Your task to perform on an android device: allow notifications from all sites in the chrome app Image 0: 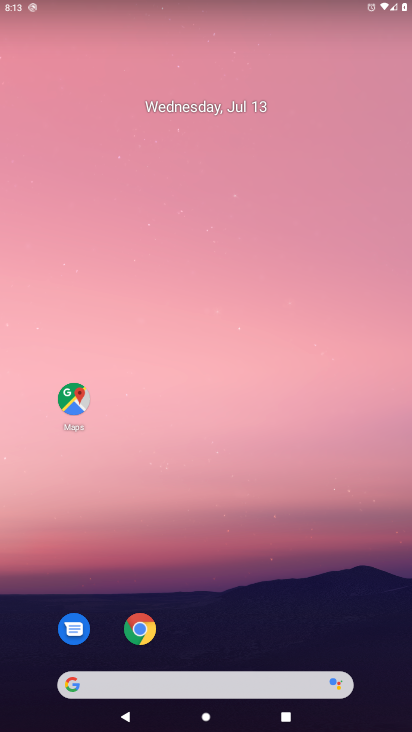
Step 0: click (256, 19)
Your task to perform on an android device: allow notifications from all sites in the chrome app Image 1: 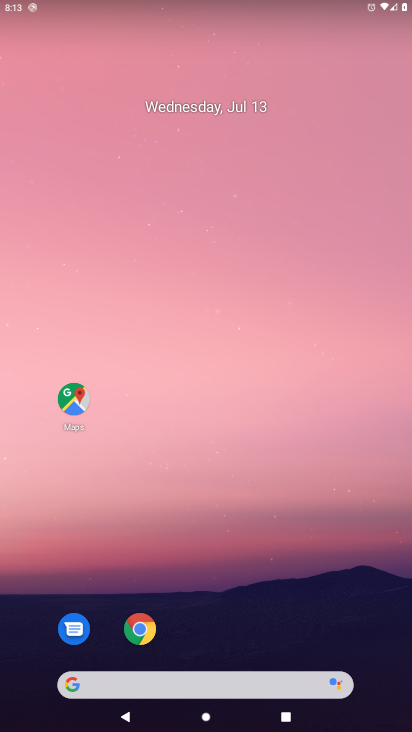
Step 1: drag from (19, 722) to (364, 12)
Your task to perform on an android device: allow notifications from all sites in the chrome app Image 2: 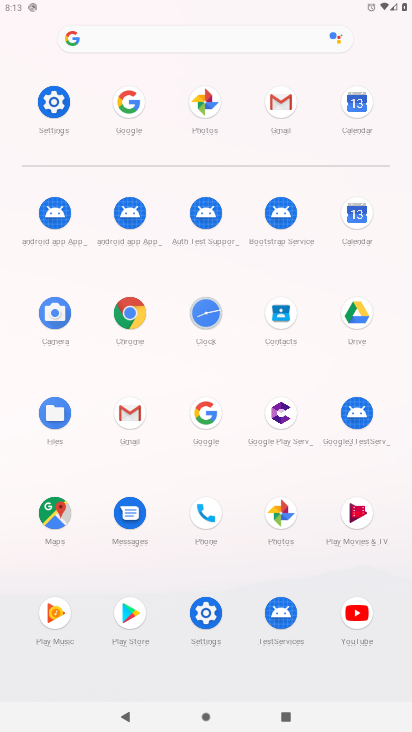
Step 2: click (145, 310)
Your task to perform on an android device: allow notifications from all sites in the chrome app Image 3: 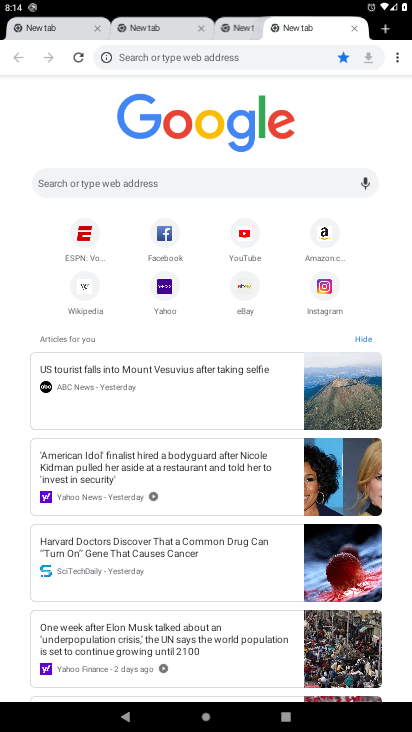
Step 3: click (399, 58)
Your task to perform on an android device: allow notifications from all sites in the chrome app Image 4: 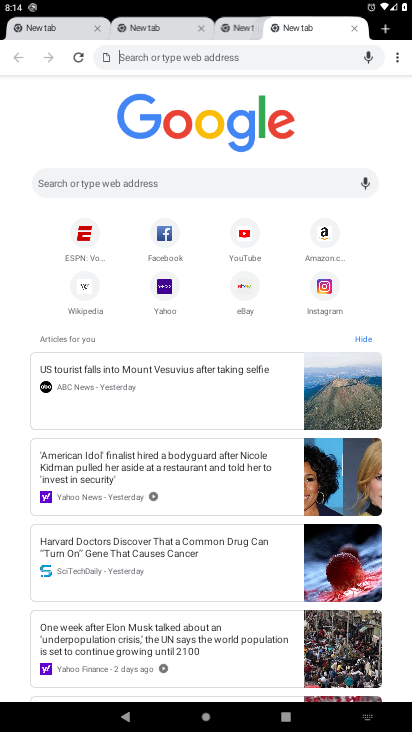
Step 4: click (399, 62)
Your task to perform on an android device: allow notifications from all sites in the chrome app Image 5: 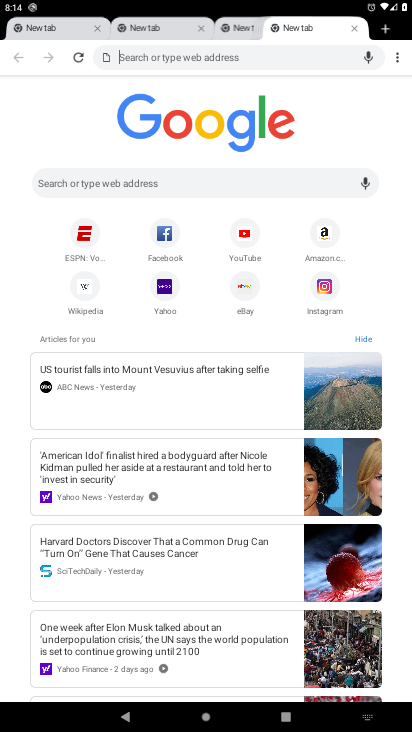
Step 5: task complete